Your task to perform on an android device: turn smart compose on in the gmail app Image 0: 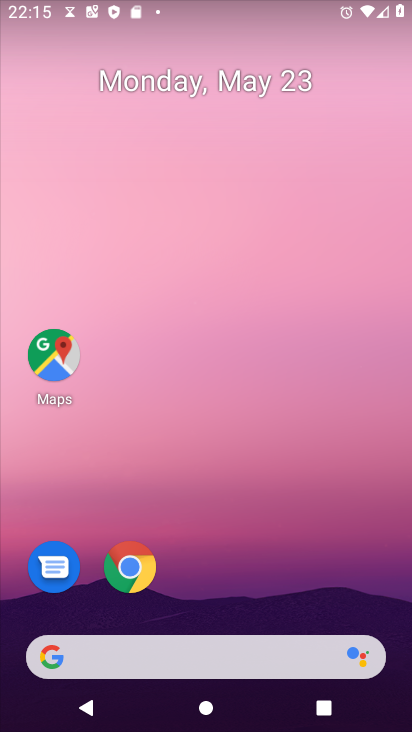
Step 0: drag from (232, 555) to (273, 217)
Your task to perform on an android device: turn smart compose on in the gmail app Image 1: 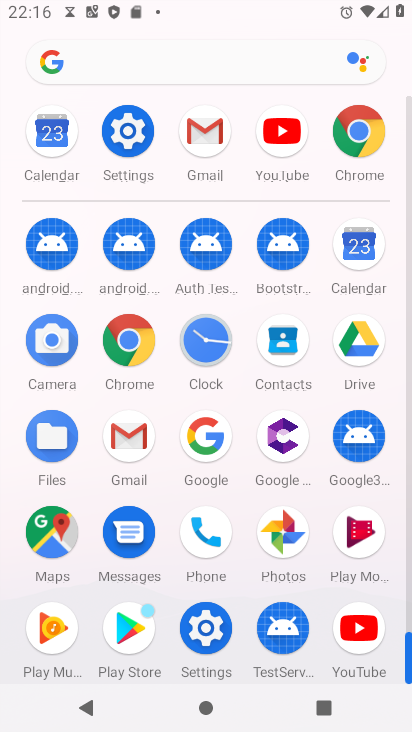
Step 1: click (128, 423)
Your task to perform on an android device: turn smart compose on in the gmail app Image 2: 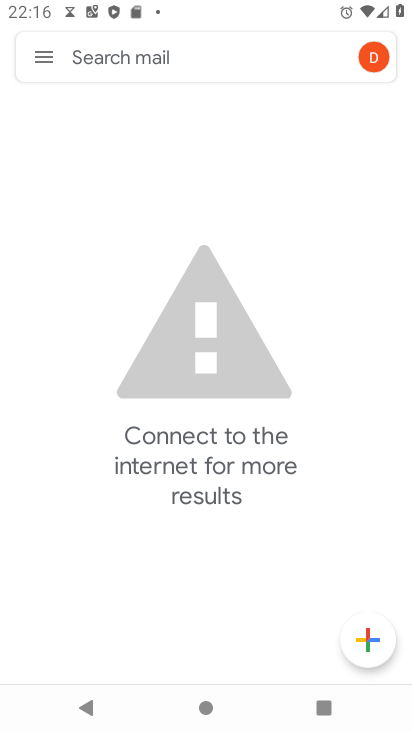
Step 2: click (43, 60)
Your task to perform on an android device: turn smart compose on in the gmail app Image 3: 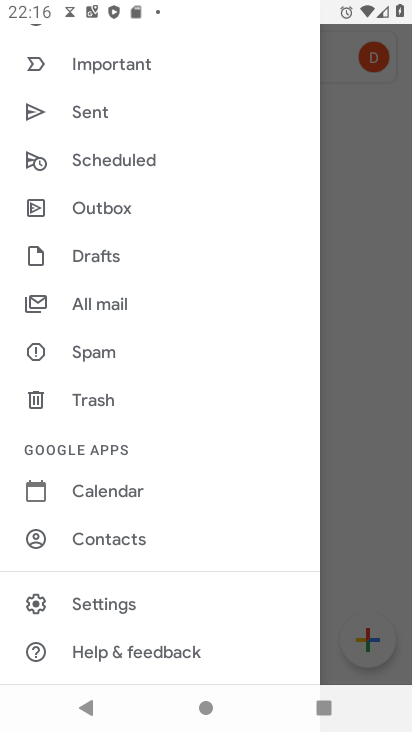
Step 3: click (121, 599)
Your task to perform on an android device: turn smart compose on in the gmail app Image 4: 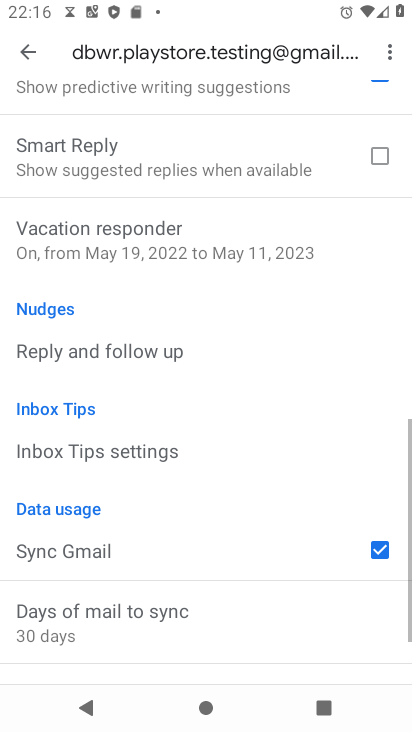
Step 4: task complete